Your task to perform on an android device: Go to Reddit.com Image 0: 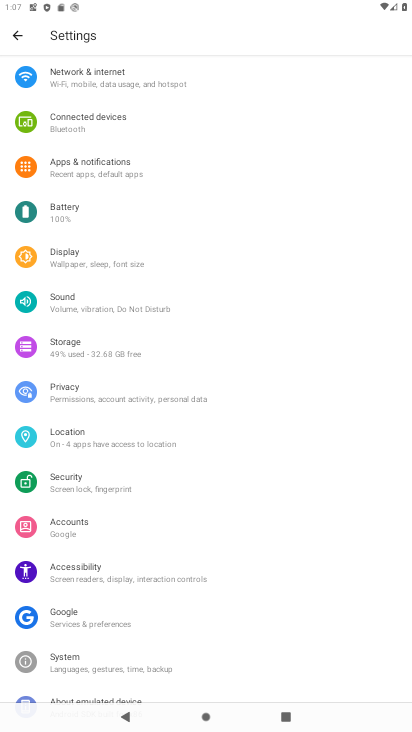
Step 0: press home button
Your task to perform on an android device: Go to Reddit.com Image 1: 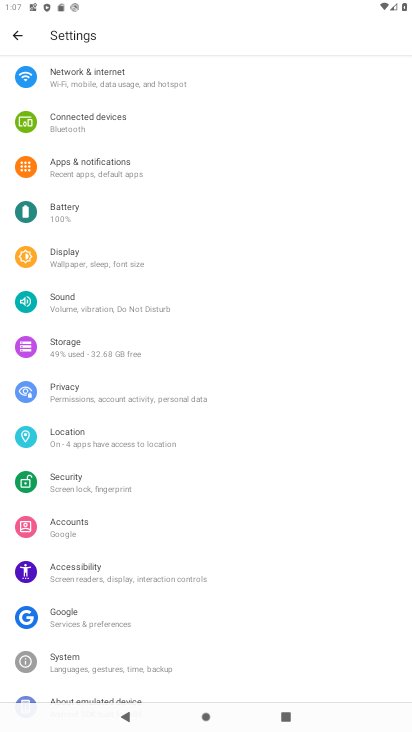
Step 1: press home button
Your task to perform on an android device: Go to Reddit.com Image 2: 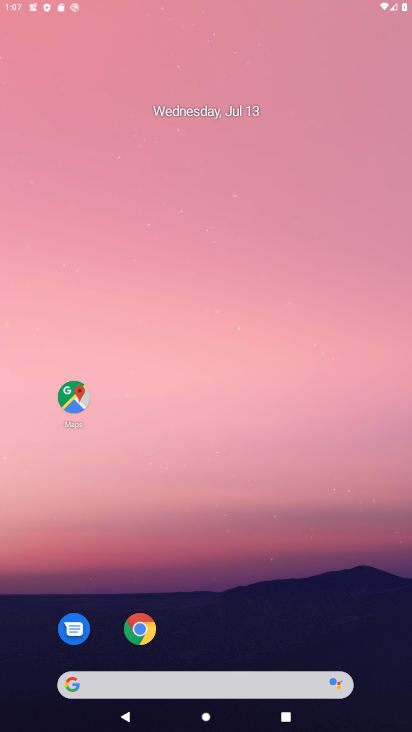
Step 2: click (259, 285)
Your task to perform on an android device: Go to Reddit.com Image 3: 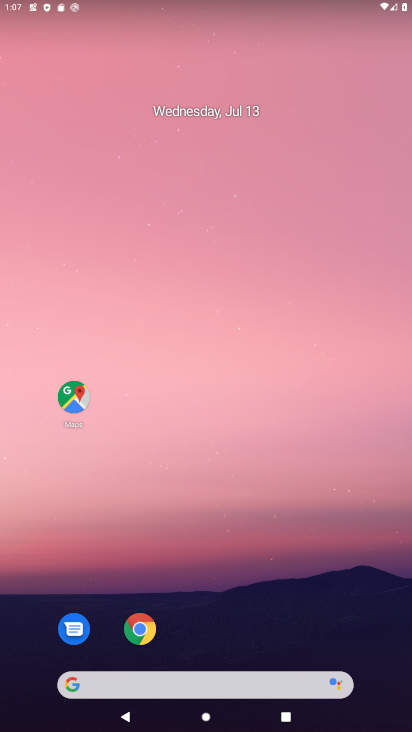
Step 3: drag from (195, 579) to (215, 202)
Your task to perform on an android device: Go to Reddit.com Image 4: 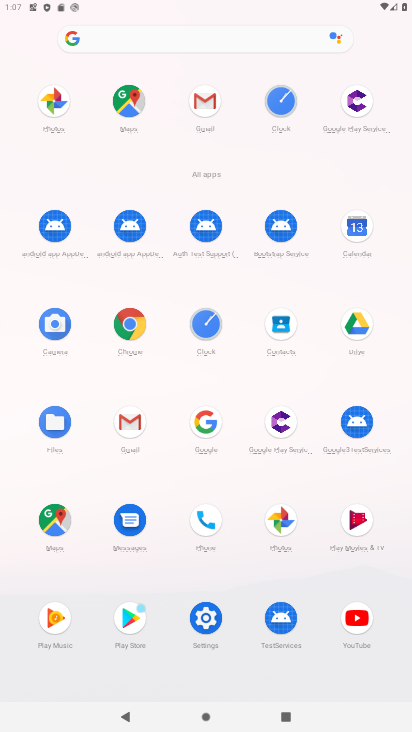
Step 4: click (119, 26)
Your task to perform on an android device: Go to Reddit.com Image 5: 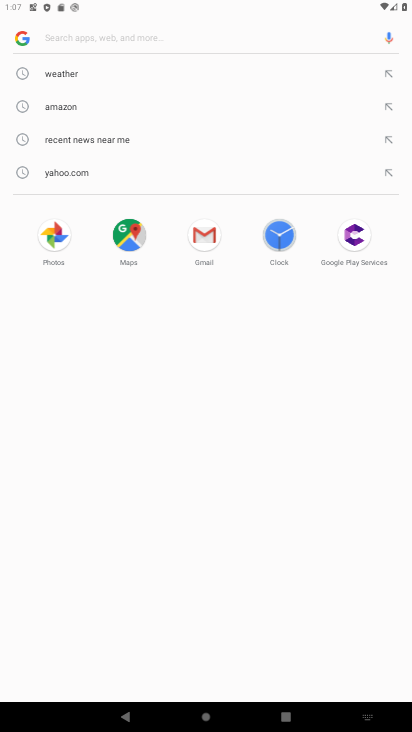
Step 5: type "reddit.com"
Your task to perform on an android device: Go to Reddit.com Image 6: 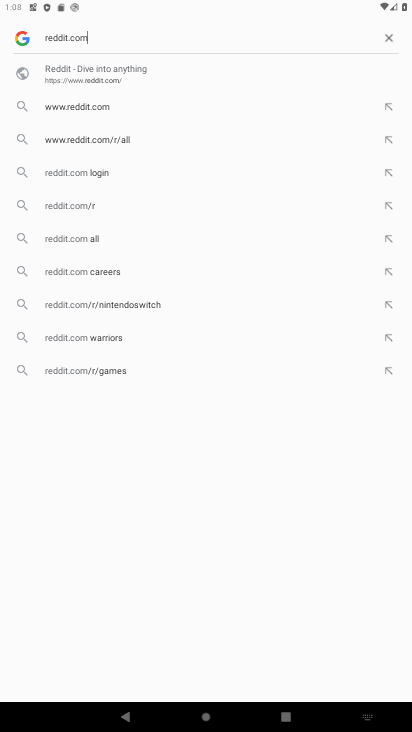
Step 6: click (77, 108)
Your task to perform on an android device: Go to Reddit.com Image 7: 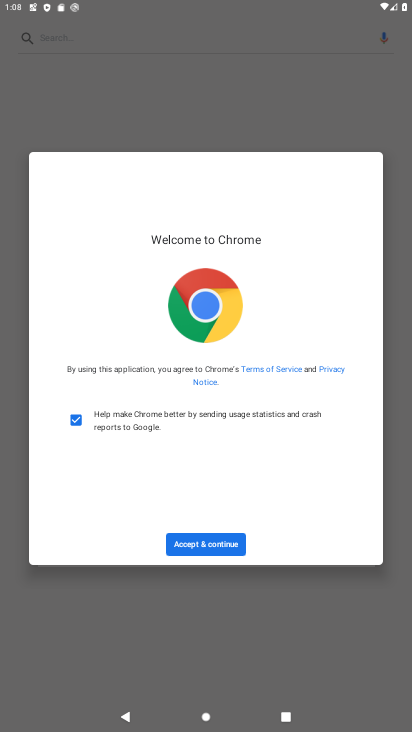
Step 7: drag from (229, 495) to (274, 301)
Your task to perform on an android device: Go to Reddit.com Image 8: 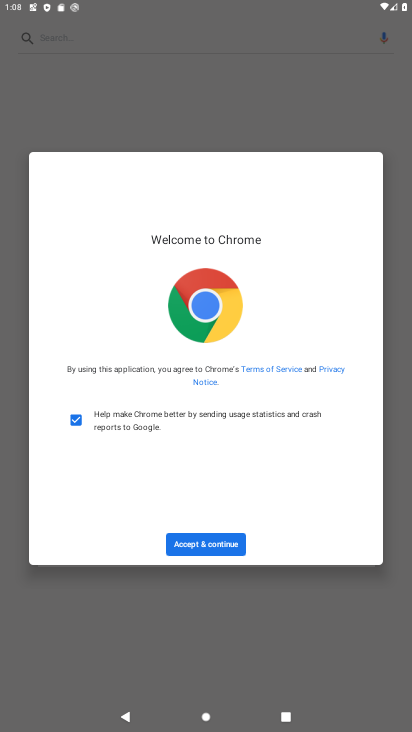
Step 8: click (191, 545)
Your task to perform on an android device: Go to Reddit.com Image 9: 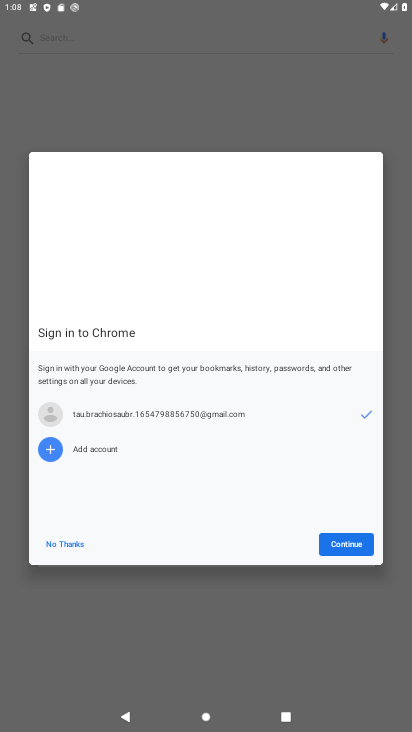
Step 9: click (345, 542)
Your task to perform on an android device: Go to Reddit.com Image 10: 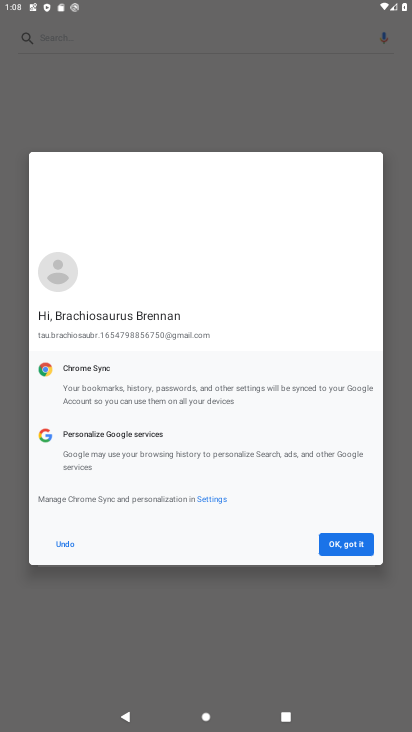
Step 10: click (348, 540)
Your task to perform on an android device: Go to Reddit.com Image 11: 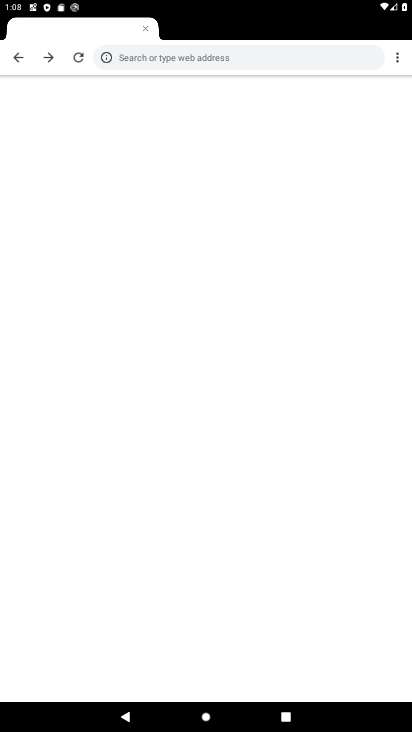
Step 11: task complete